Your task to perform on an android device: delete a single message in the gmail app Image 0: 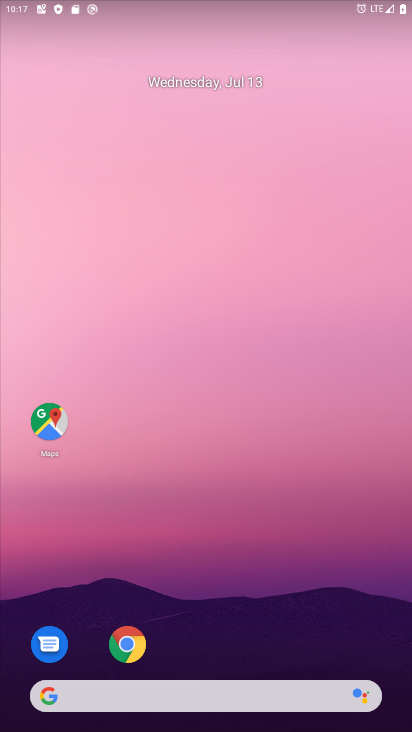
Step 0: drag from (200, 727) to (211, 141)
Your task to perform on an android device: delete a single message in the gmail app Image 1: 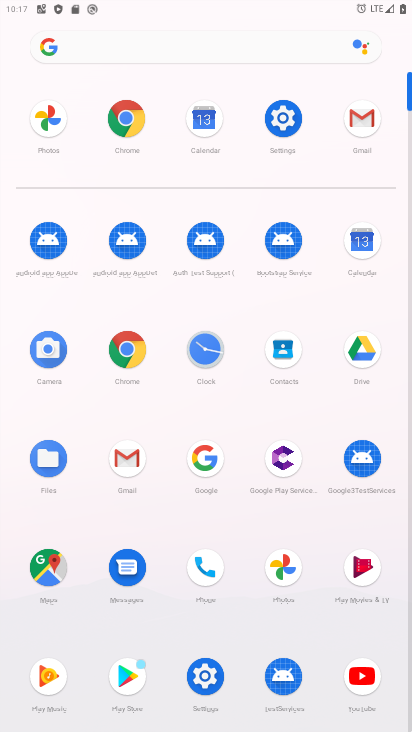
Step 1: click (134, 464)
Your task to perform on an android device: delete a single message in the gmail app Image 2: 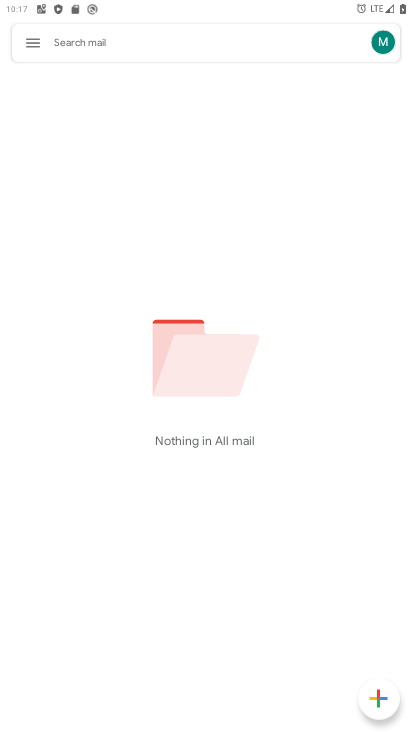
Step 2: click (28, 35)
Your task to perform on an android device: delete a single message in the gmail app Image 3: 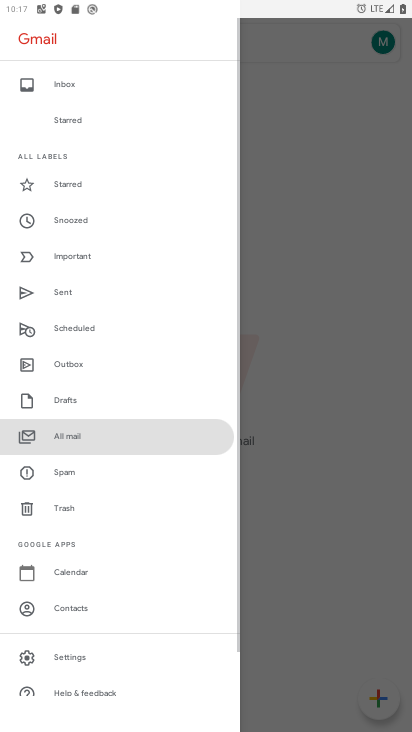
Step 3: click (65, 90)
Your task to perform on an android device: delete a single message in the gmail app Image 4: 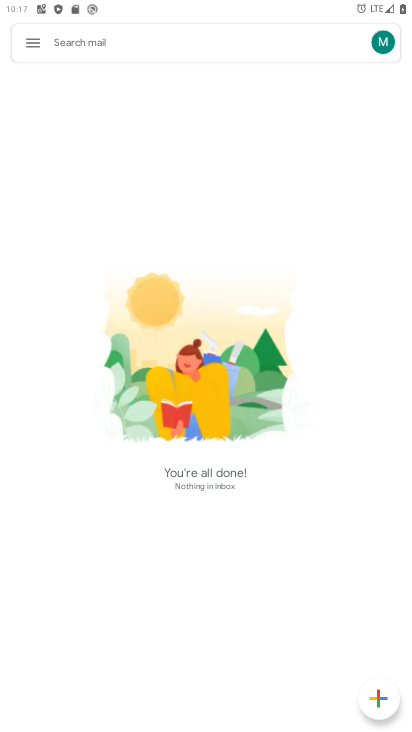
Step 4: task complete